Your task to perform on an android device: Open accessibility settings Image 0: 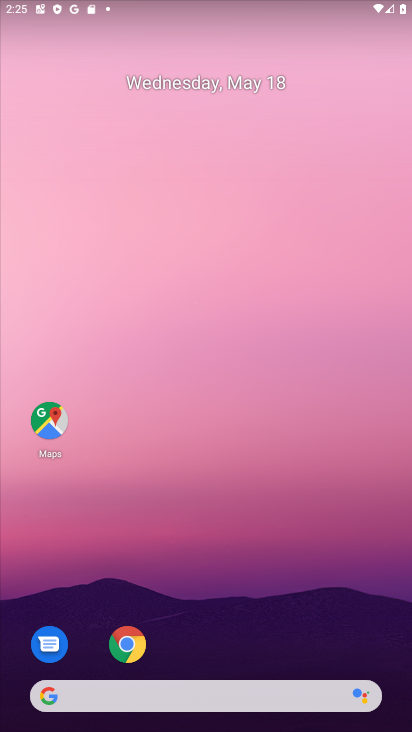
Step 0: drag from (253, 637) to (247, 119)
Your task to perform on an android device: Open accessibility settings Image 1: 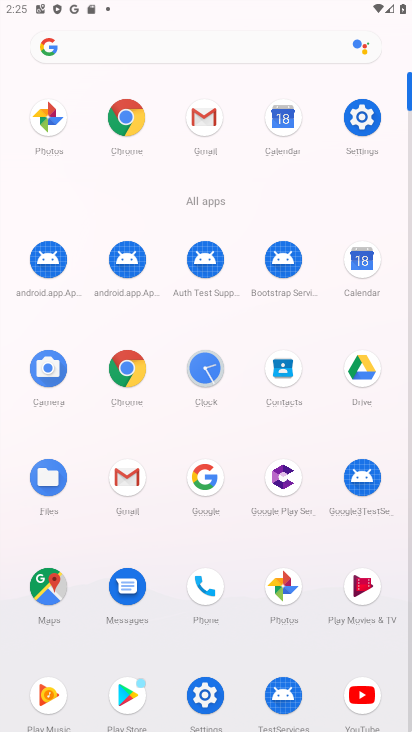
Step 1: click (360, 113)
Your task to perform on an android device: Open accessibility settings Image 2: 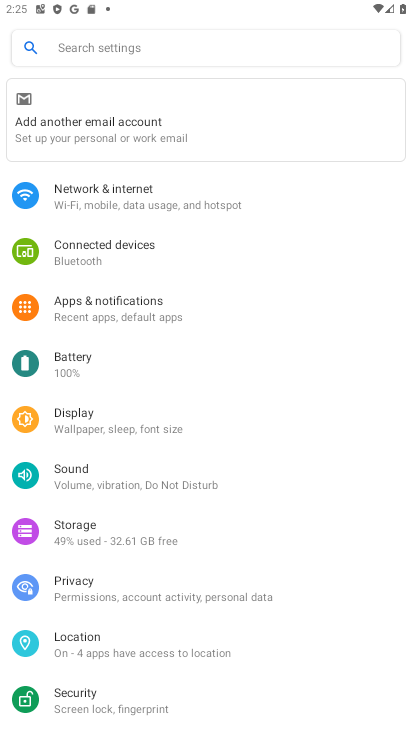
Step 2: drag from (186, 556) to (191, 420)
Your task to perform on an android device: Open accessibility settings Image 3: 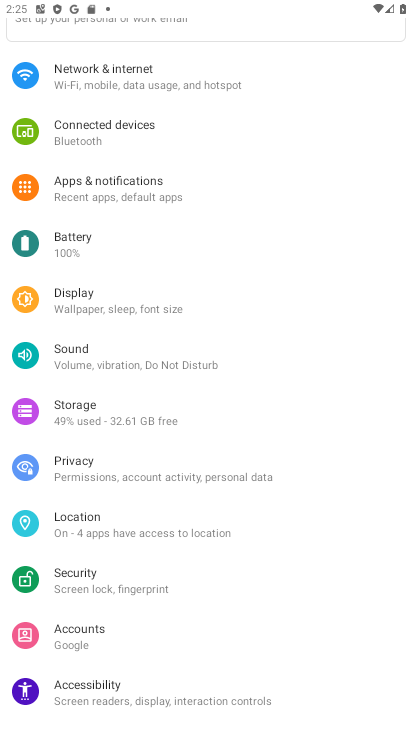
Step 3: drag from (157, 631) to (171, 414)
Your task to perform on an android device: Open accessibility settings Image 4: 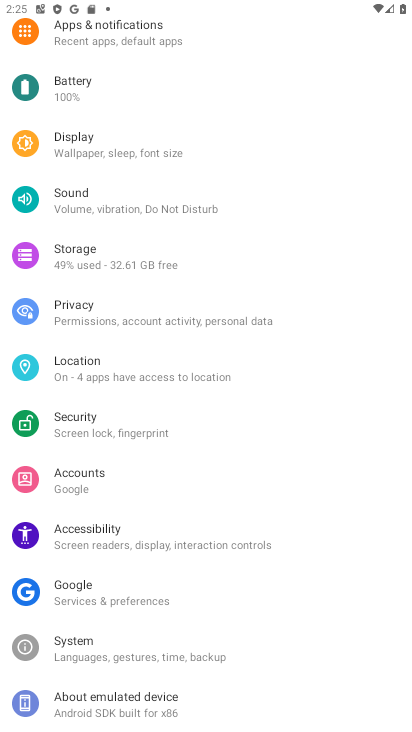
Step 4: click (101, 539)
Your task to perform on an android device: Open accessibility settings Image 5: 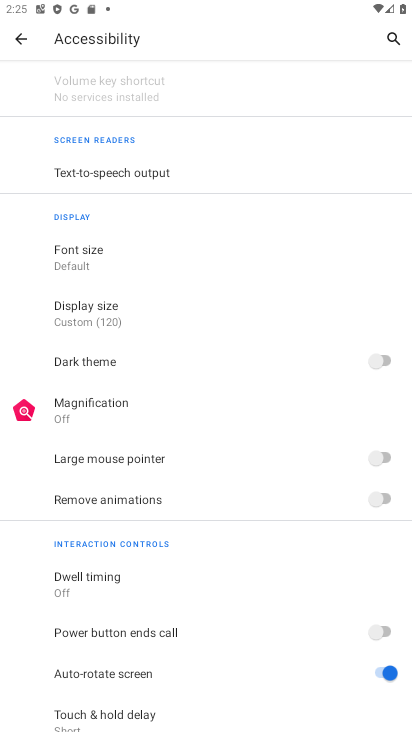
Step 5: task complete